Your task to perform on an android device: Open network settings Image 0: 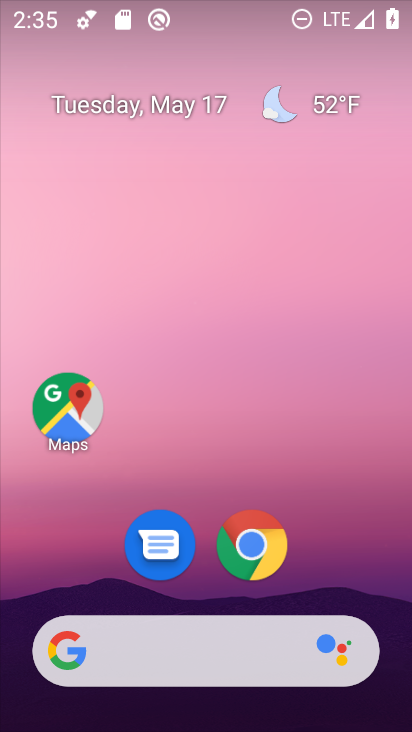
Step 0: drag from (354, 530) to (366, 181)
Your task to perform on an android device: Open network settings Image 1: 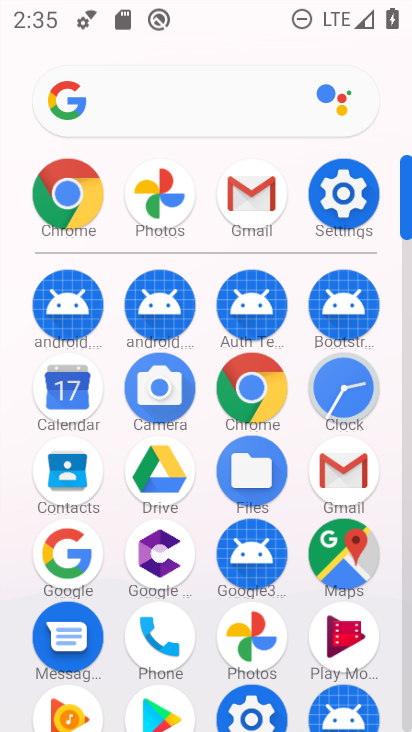
Step 1: click (341, 196)
Your task to perform on an android device: Open network settings Image 2: 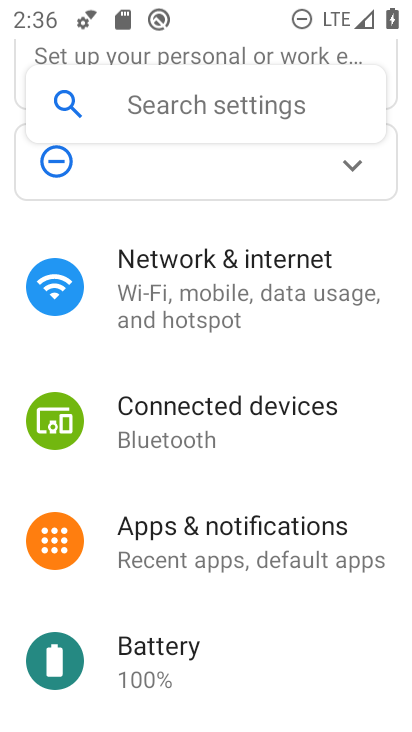
Step 2: drag from (336, 620) to (352, 452)
Your task to perform on an android device: Open network settings Image 3: 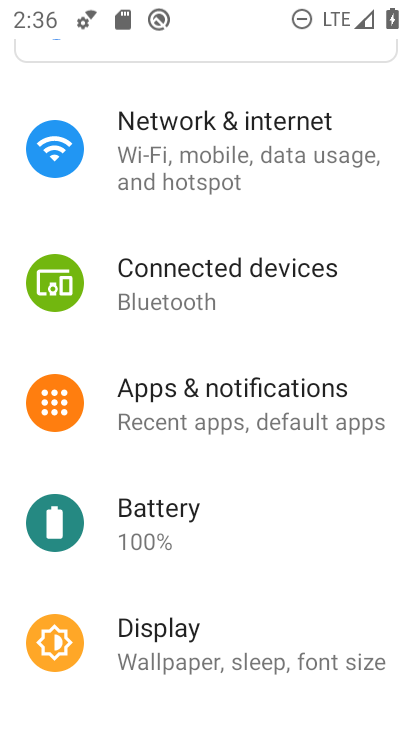
Step 3: drag from (342, 551) to (344, 467)
Your task to perform on an android device: Open network settings Image 4: 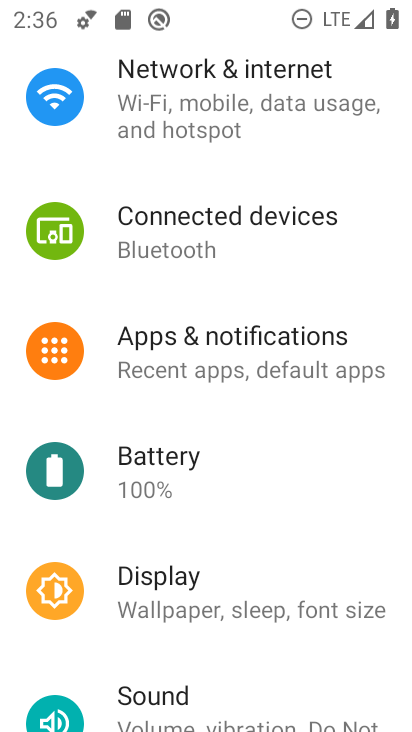
Step 4: drag from (345, 578) to (345, 442)
Your task to perform on an android device: Open network settings Image 5: 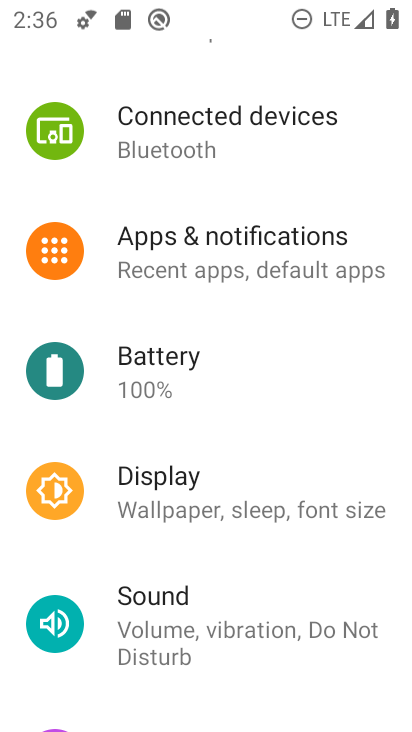
Step 5: drag from (363, 516) to (366, 422)
Your task to perform on an android device: Open network settings Image 6: 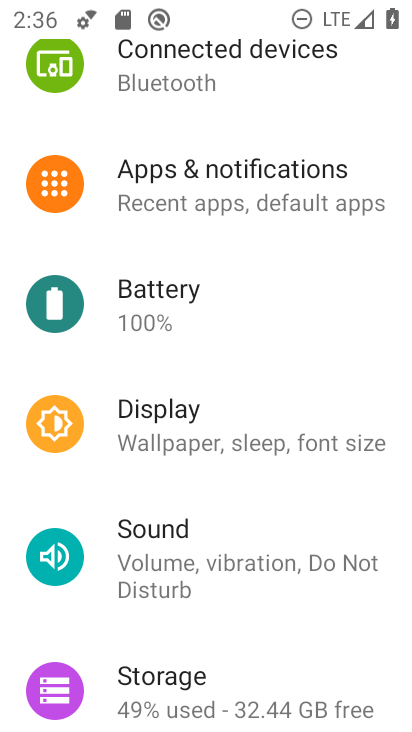
Step 6: drag from (347, 603) to (354, 456)
Your task to perform on an android device: Open network settings Image 7: 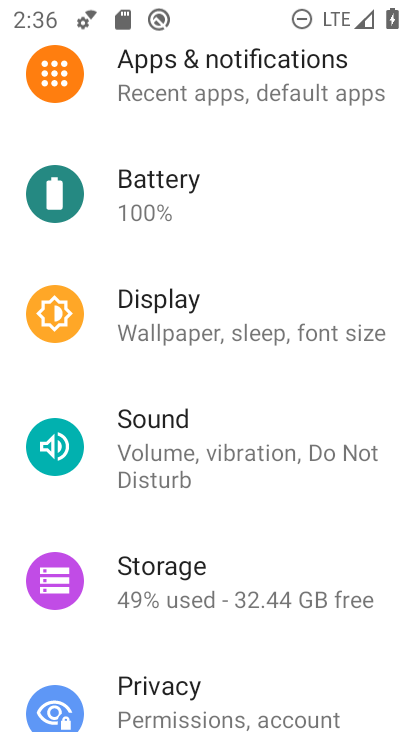
Step 7: drag from (342, 650) to (355, 492)
Your task to perform on an android device: Open network settings Image 8: 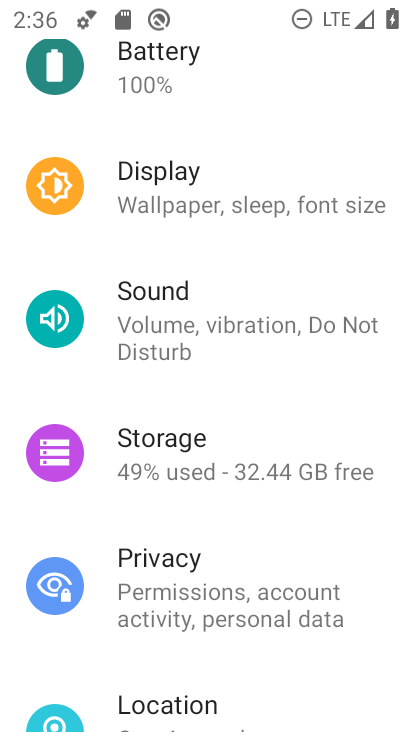
Step 8: drag from (353, 672) to (366, 509)
Your task to perform on an android device: Open network settings Image 9: 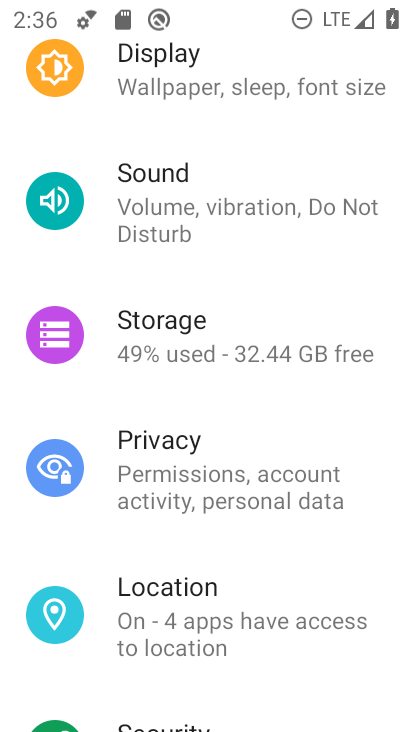
Step 9: drag from (359, 647) to (373, 543)
Your task to perform on an android device: Open network settings Image 10: 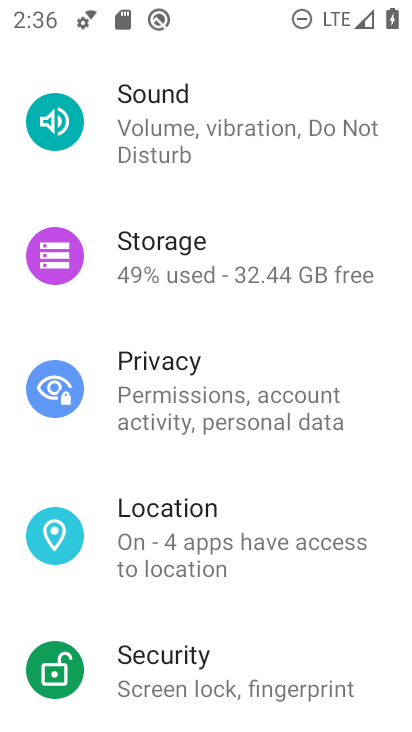
Step 10: drag from (373, 665) to (375, 474)
Your task to perform on an android device: Open network settings Image 11: 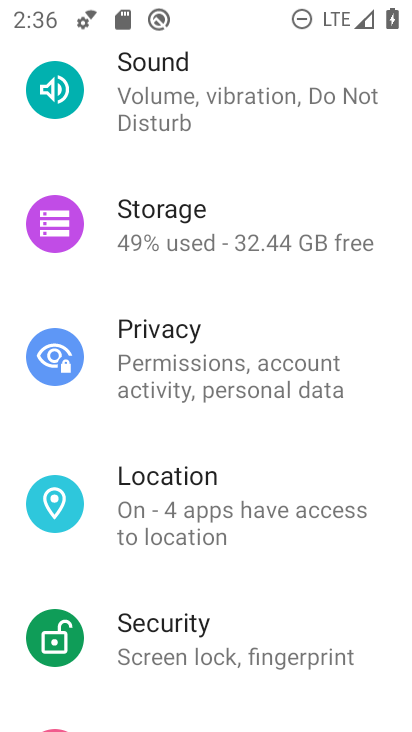
Step 11: drag from (307, 620) to (322, 473)
Your task to perform on an android device: Open network settings Image 12: 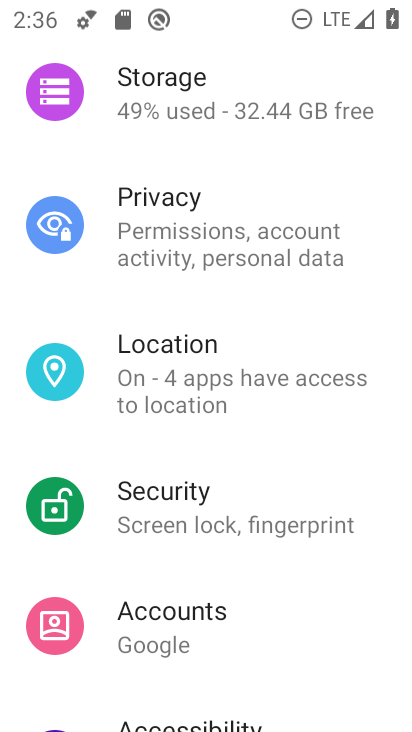
Step 12: drag from (366, 282) to (370, 434)
Your task to perform on an android device: Open network settings Image 13: 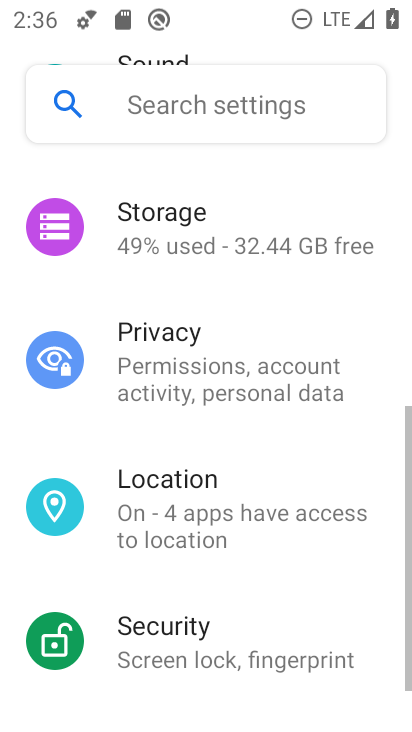
Step 13: drag from (386, 253) to (385, 399)
Your task to perform on an android device: Open network settings Image 14: 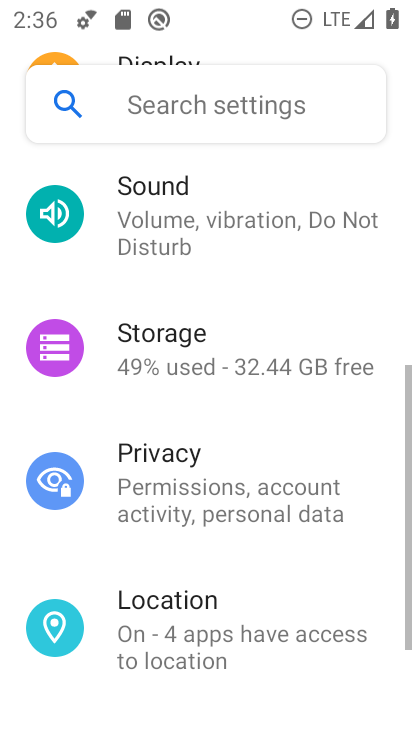
Step 14: drag from (386, 278) to (382, 415)
Your task to perform on an android device: Open network settings Image 15: 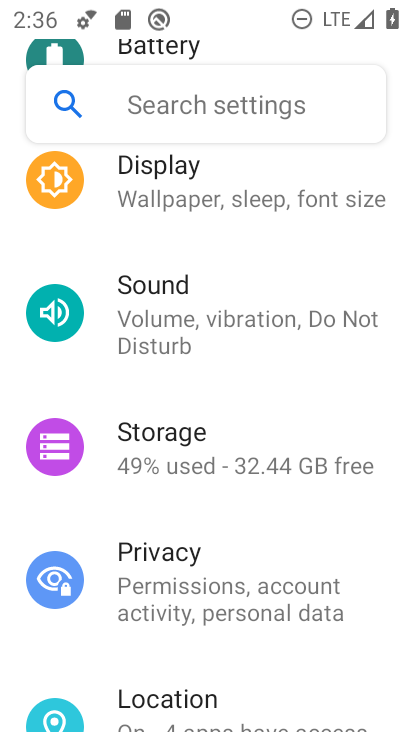
Step 15: drag from (385, 242) to (385, 396)
Your task to perform on an android device: Open network settings Image 16: 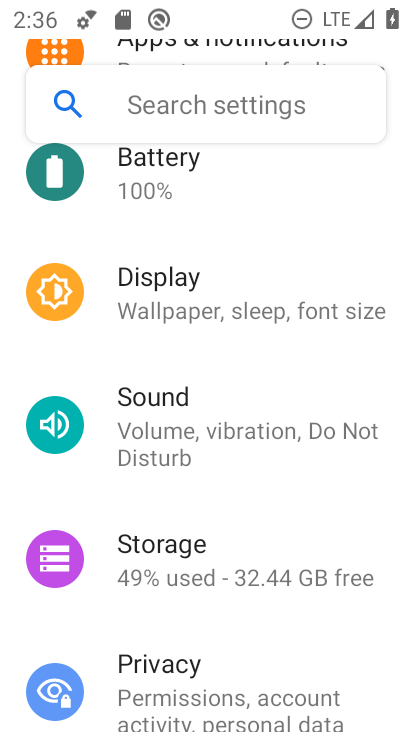
Step 16: drag from (373, 220) to (367, 381)
Your task to perform on an android device: Open network settings Image 17: 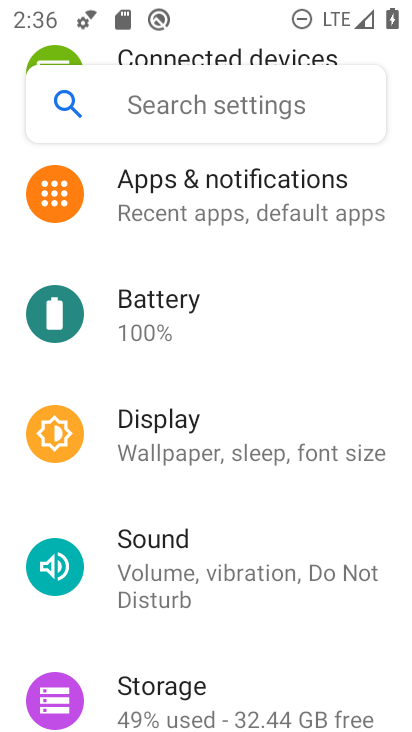
Step 17: drag from (361, 260) to (356, 410)
Your task to perform on an android device: Open network settings Image 18: 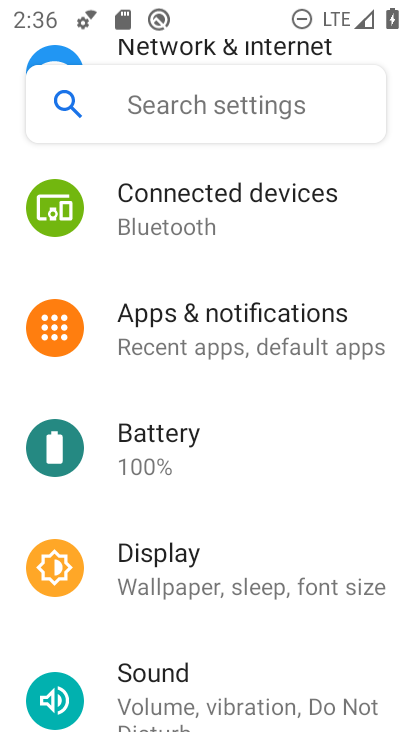
Step 18: drag from (369, 240) to (358, 371)
Your task to perform on an android device: Open network settings Image 19: 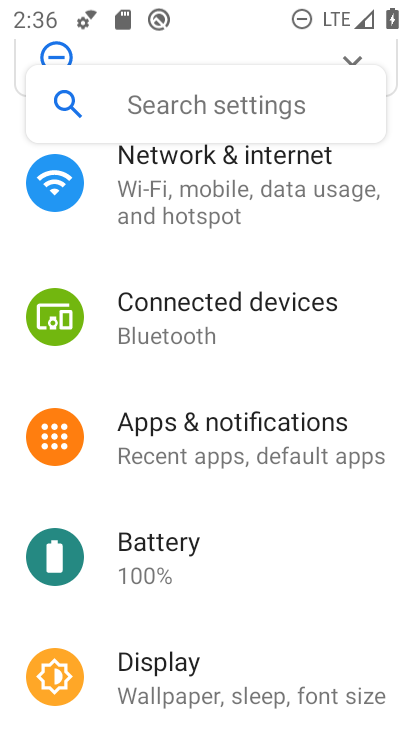
Step 19: drag from (363, 241) to (368, 380)
Your task to perform on an android device: Open network settings Image 20: 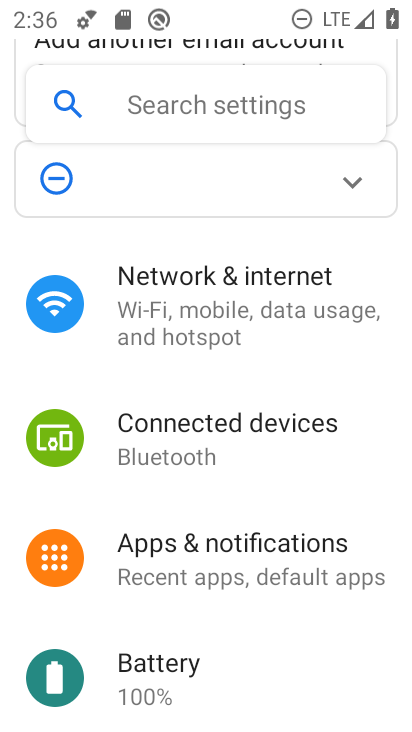
Step 20: click (276, 313)
Your task to perform on an android device: Open network settings Image 21: 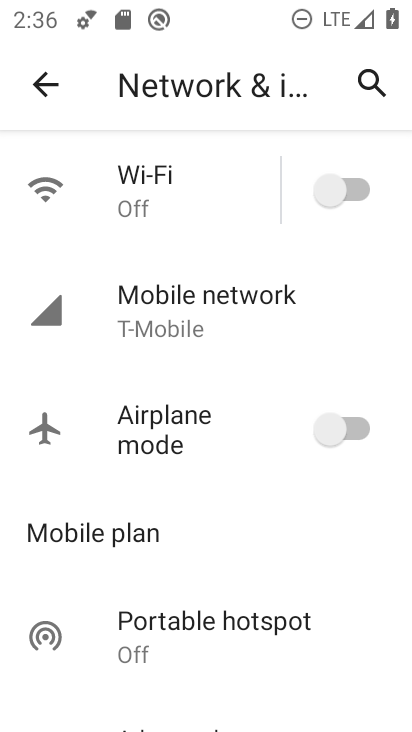
Step 21: task complete